Your task to perform on an android device: turn off data saver in the chrome app Image 0: 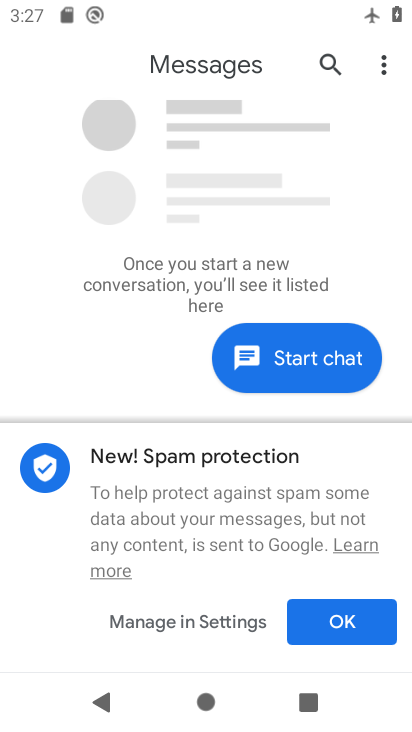
Step 0: press home button
Your task to perform on an android device: turn off data saver in the chrome app Image 1: 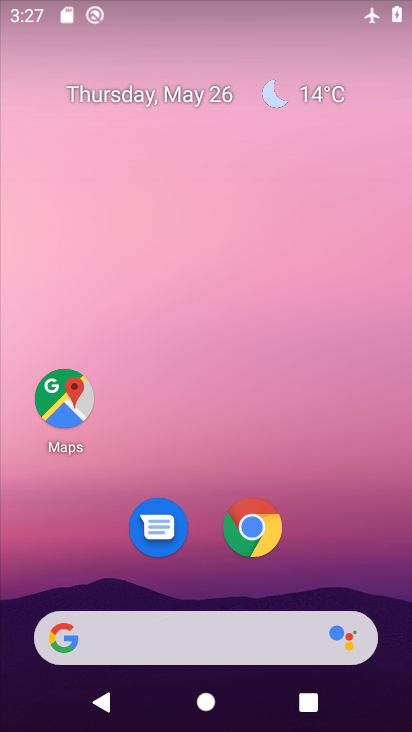
Step 1: click (257, 544)
Your task to perform on an android device: turn off data saver in the chrome app Image 2: 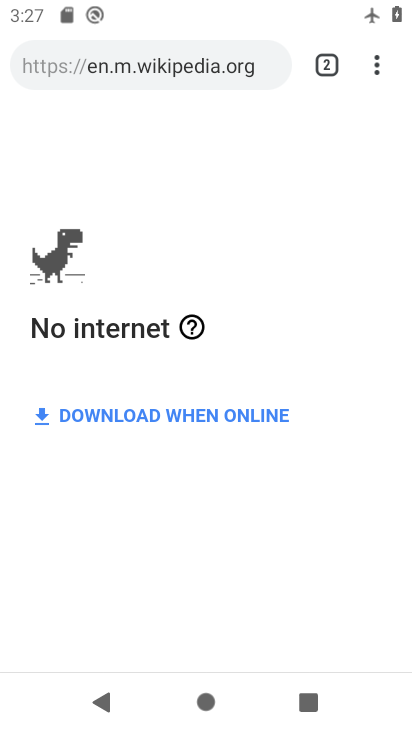
Step 2: click (374, 69)
Your task to perform on an android device: turn off data saver in the chrome app Image 3: 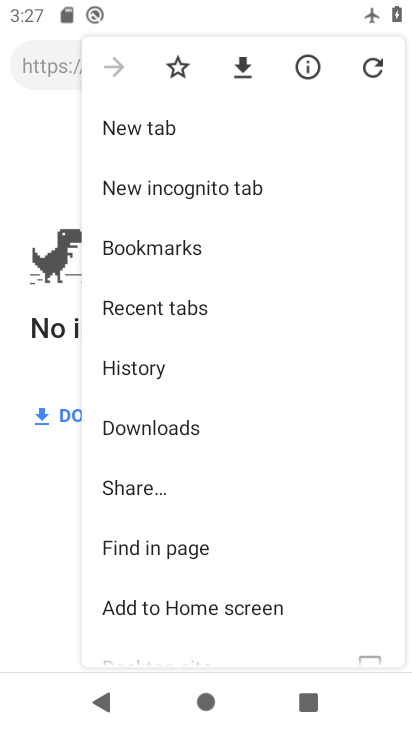
Step 3: drag from (174, 587) to (139, 223)
Your task to perform on an android device: turn off data saver in the chrome app Image 4: 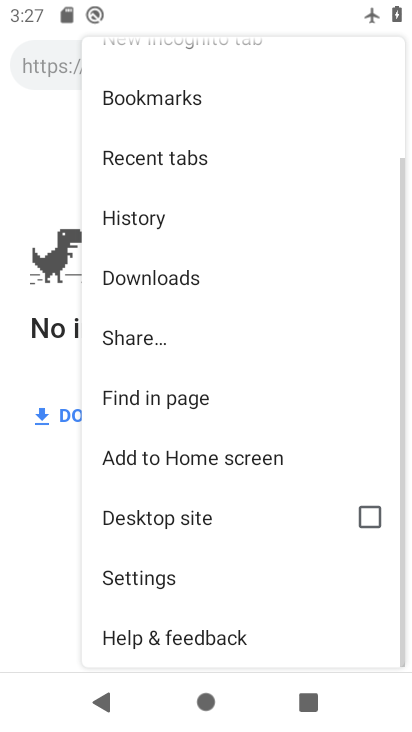
Step 4: click (173, 573)
Your task to perform on an android device: turn off data saver in the chrome app Image 5: 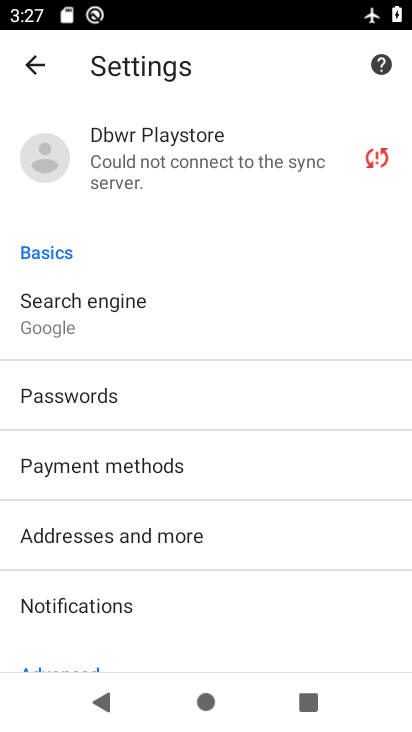
Step 5: drag from (165, 652) to (144, 290)
Your task to perform on an android device: turn off data saver in the chrome app Image 6: 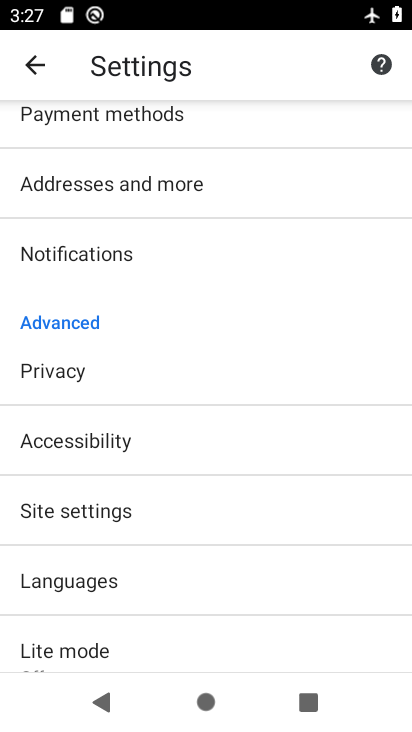
Step 6: drag from (164, 615) to (144, 418)
Your task to perform on an android device: turn off data saver in the chrome app Image 7: 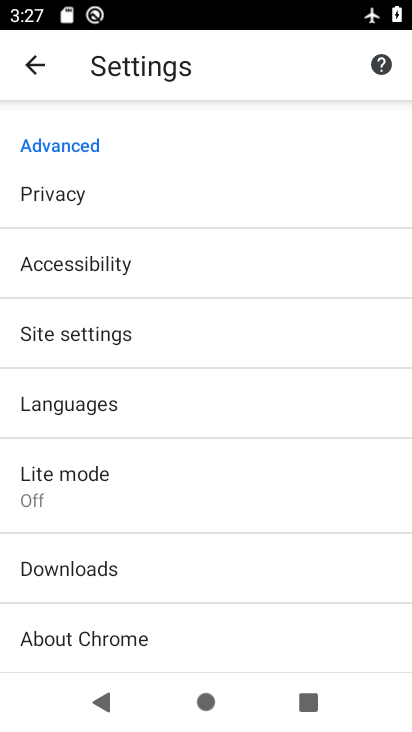
Step 7: click (114, 480)
Your task to perform on an android device: turn off data saver in the chrome app Image 8: 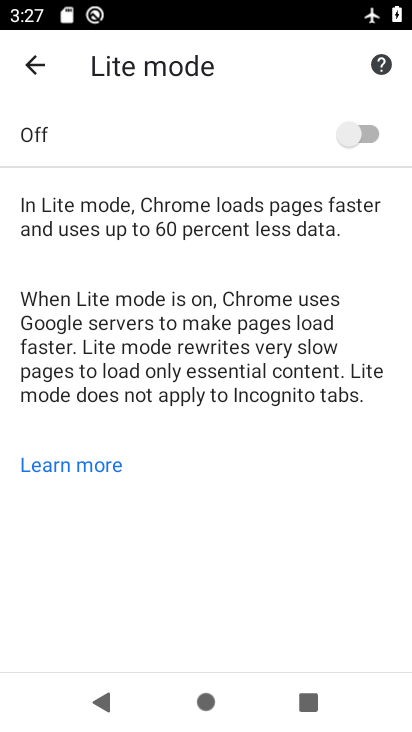
Step 8: task complete